Your task to perform on an android device: Search for dell alienware on newegg, select the first entry, add it to the cart, then select checkout. Image 0: 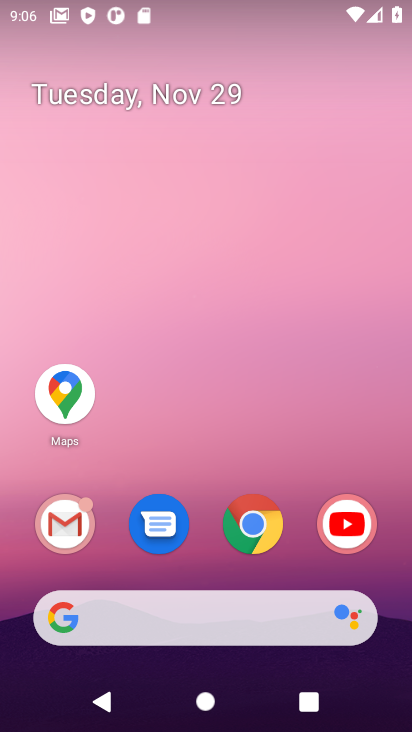
Step 0: click (254, 522)
Your task to perform on an android device: Search for dell alienware on newegg, select the first entry, add it to the cart, then select checkout. Image 1: 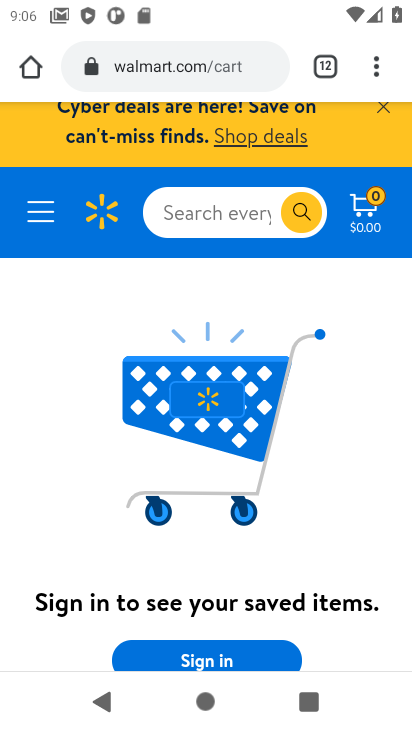
Step 1: click (177, 65)
Your task to perform on an android device: Search for dell alienware on newegg, select the first entry, add it to the cart, then select checkout. Image 2: 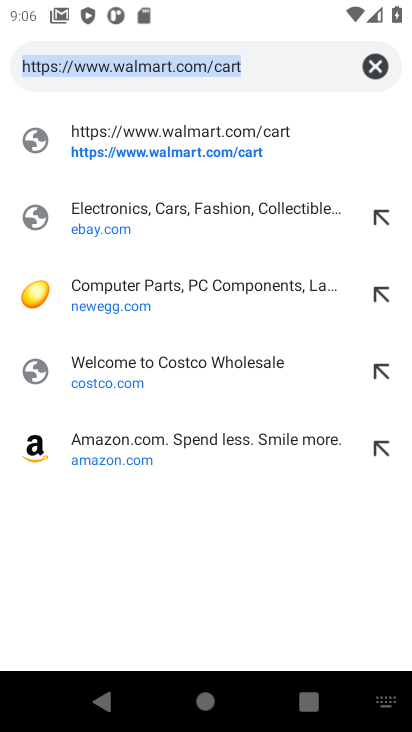
Step 2: click (89, 304)
Your task to perform on an android device: Search for dell alienware on newegg, select the first entry, add it to the cart, then select checkout. Image 3: 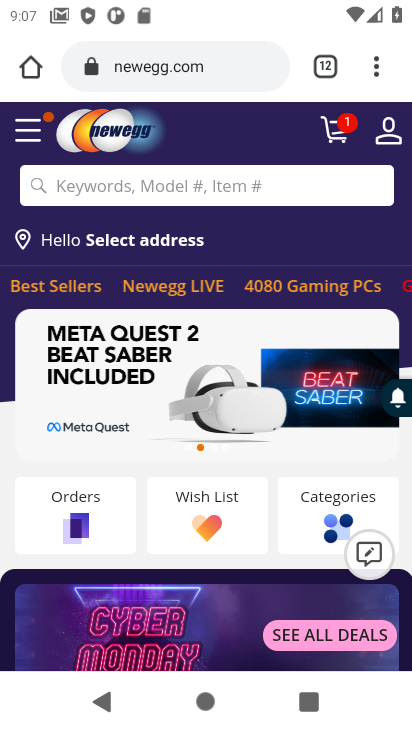
Step 3: click (101, 184)
Your task to perform on an android device: Search for dell alienware on newegg, select the first entry, add it to the cart, then select checkout. Image 4: 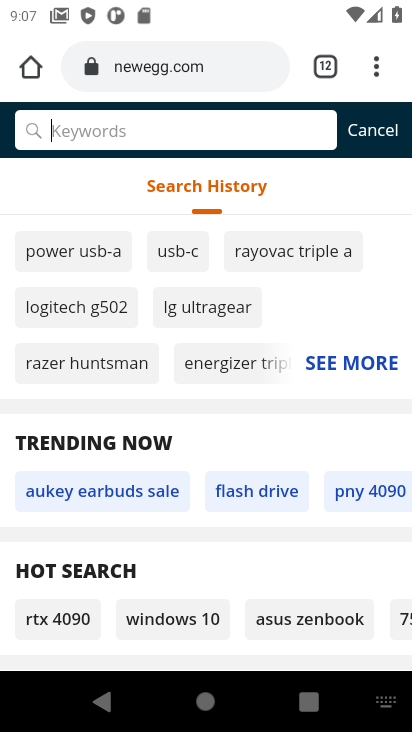
Step 4: type " dell alienware"
Your task to perform on an android device: Search for dell alienware on newegg, select the first entry, add it to the cart, then select checkout. Image 5: 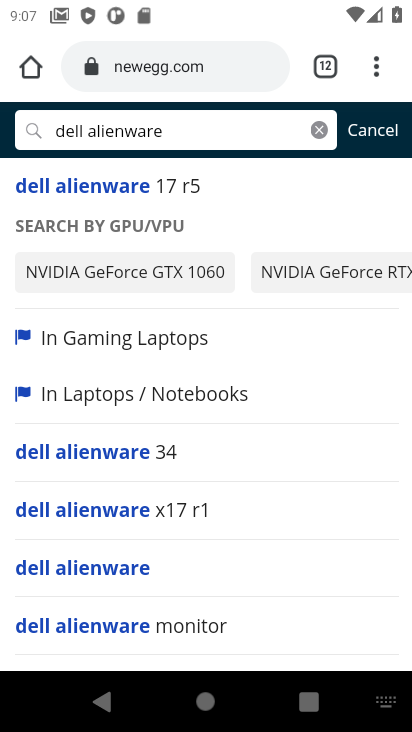
Step 5: click (133, 567)
Your task to perform on an android device: Search for dell alienware on newegg, select the first entry, add it to the cart, then select checkout. Image 6: 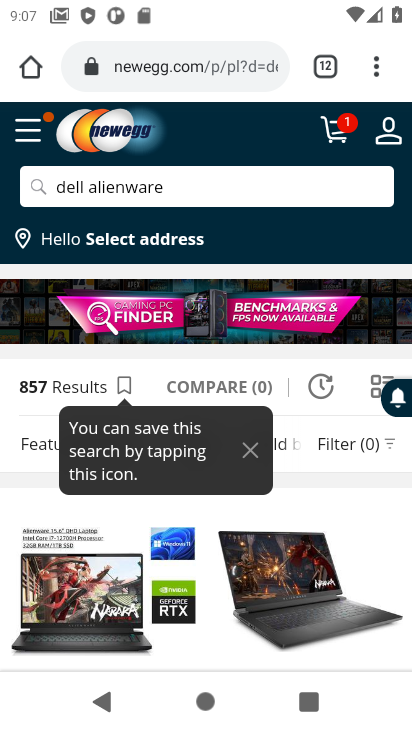
Step 6: drag from (208, 597) to (168, 327)
Your task to perform on an android device: Search for dell alienware on newegg, select the first entry, add it to the cart, then select checkout. Image 7: 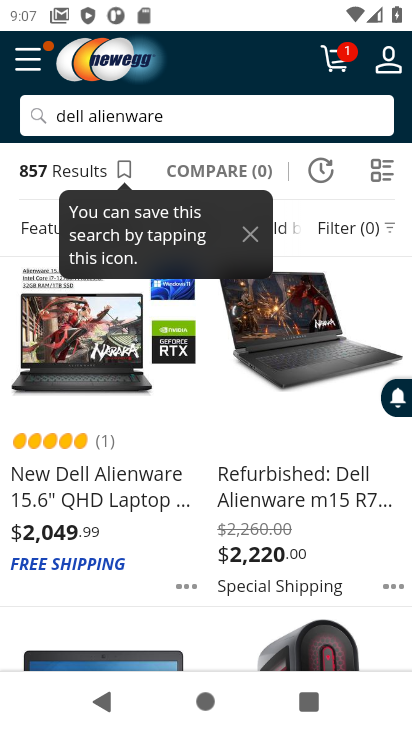
Step 7: click (75, 369)
Your task to perform on an android device: Search for dell alienware on newegg, select the first entry, add it to the cart, then select checkout. Image 8: 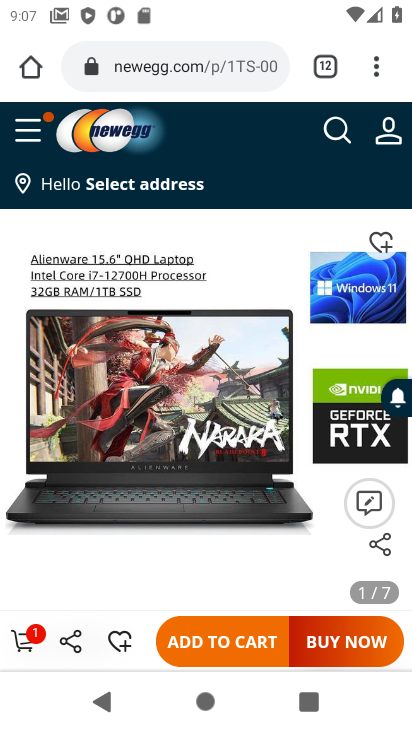
Step 8: click (230, 642)
Your task to perform on an android device: Search for dell alienware on newegg, select the first entry, add it to the cart, then select checkout. Image 9: 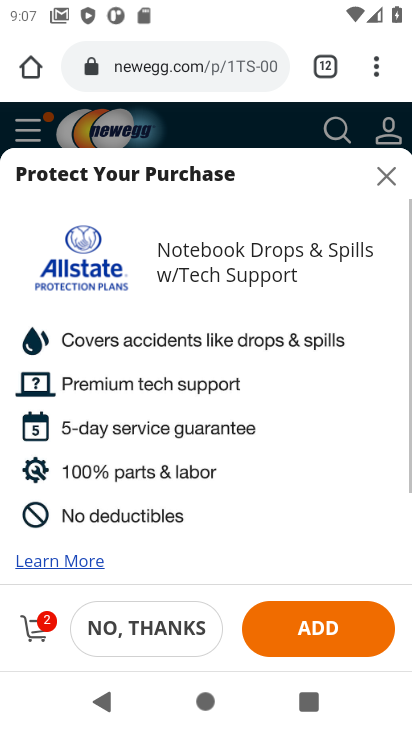
Step 9: click (38, 626)
Your task to perform on an android device: Search for dell alienware on newegg, select the first entry, add it to the cart, then select checkout. Image 10: 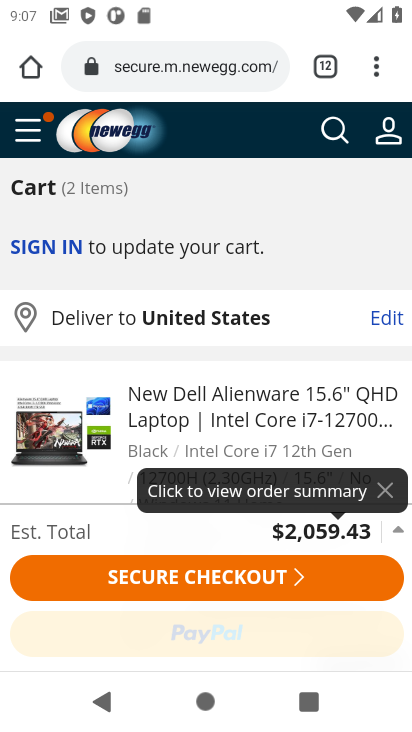
Step 10: click (171, 576)
Your task to perform on an android device: Search for dell alienware on newegg, select the first entry, add it to the cart, then select checkout. Image 11: 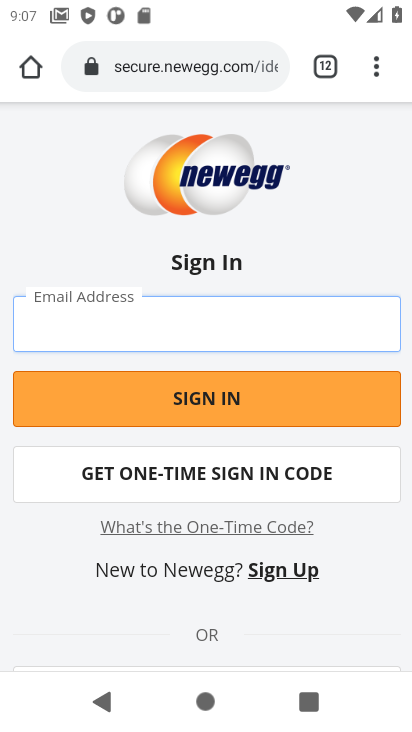
Step 11: task complete